Your task to perform on an android device: Open the phone app and click the voicemail tab. Image 0: 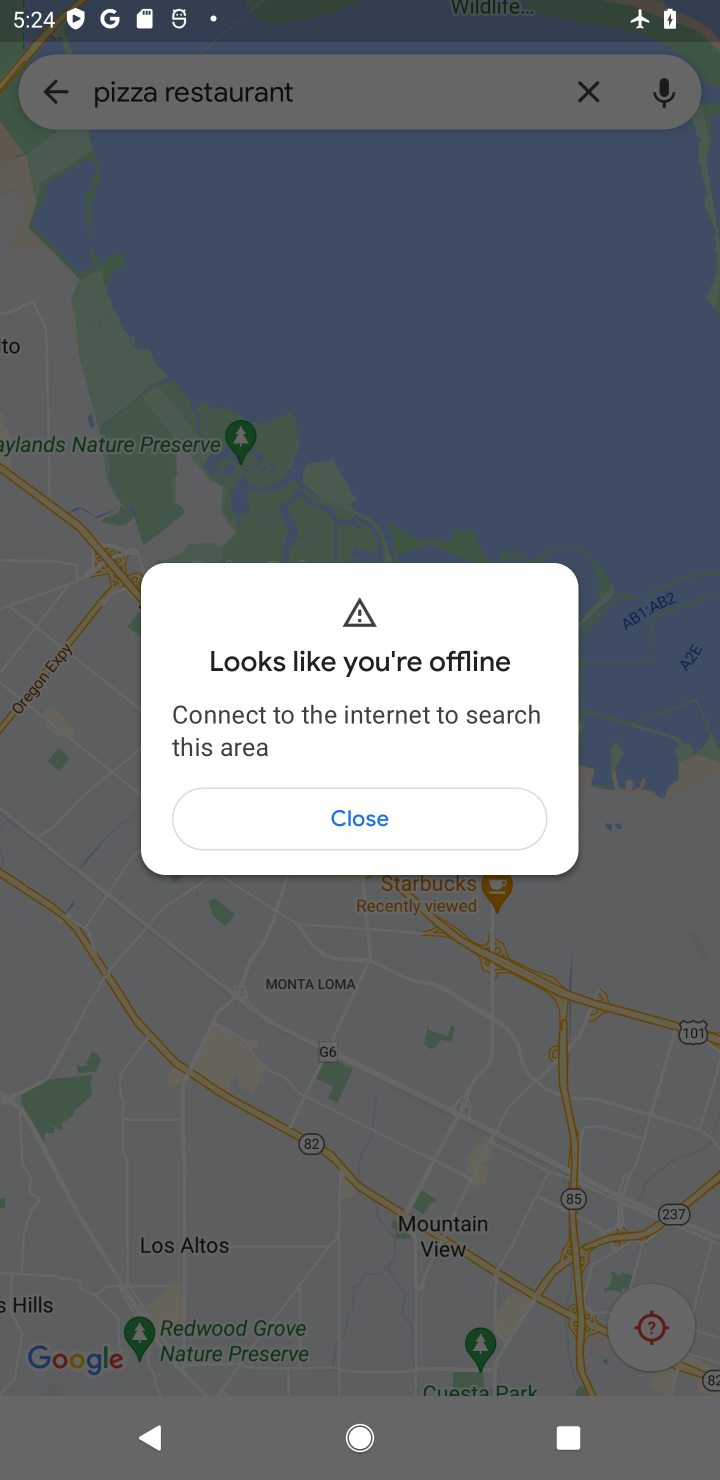
Step 0: press home button
Your task to perform on an android device: Open the phone app and click the voicemail tab. Image 1: 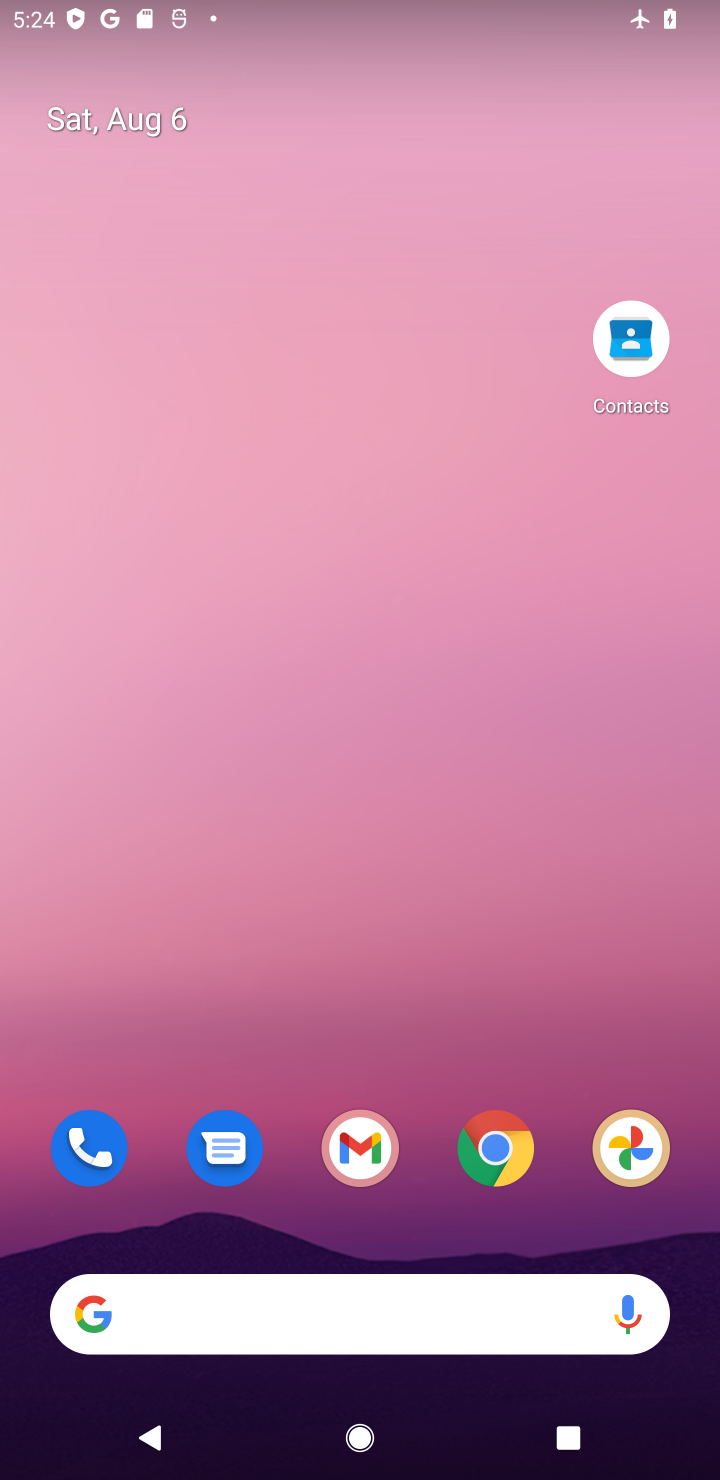
Step 1: drag from (284, 1229) to (674, 998)
Your task to perform on an android device: Open the phone app and click the voicemail tab. Image 2: 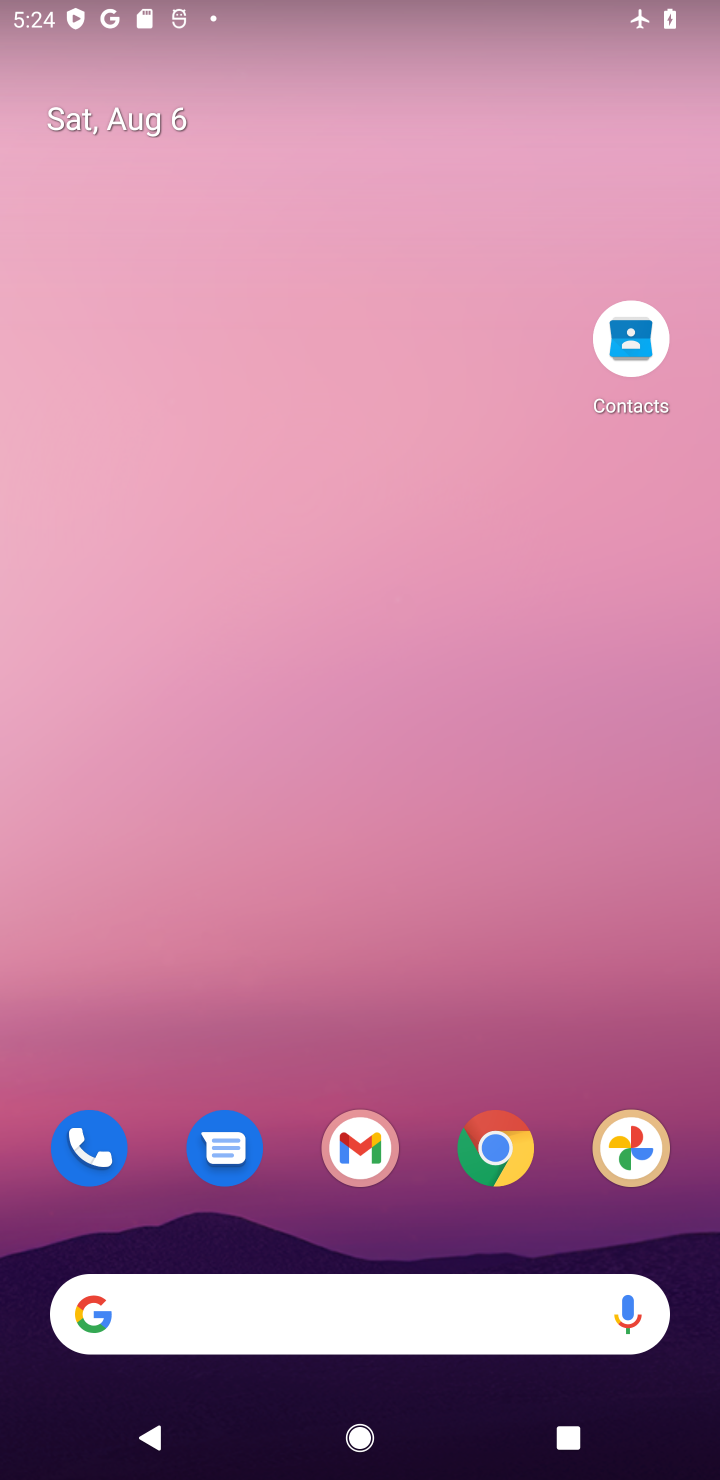
Step 2: click (134, 1172)
Your task to perform on an android device: Open the phone app and click the voicemail tab. Image 3: 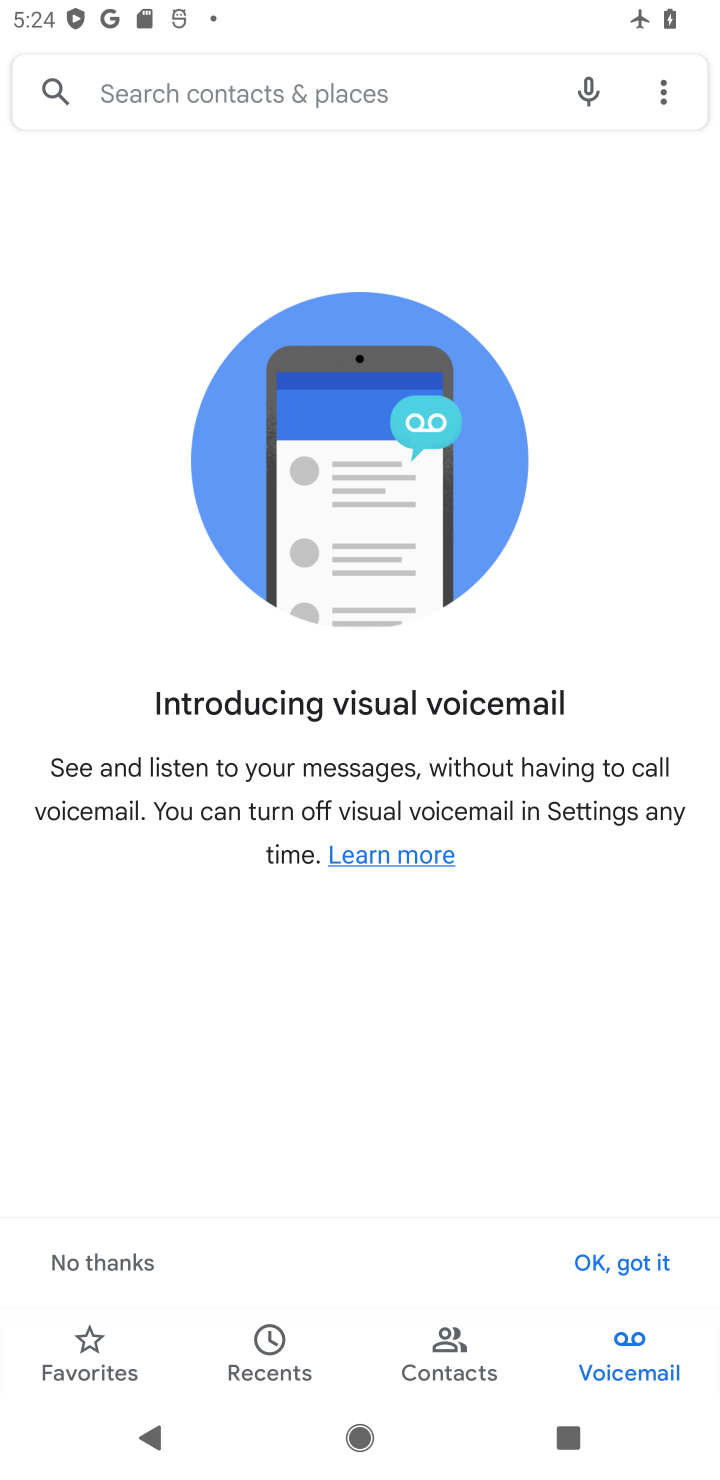
Step 3: task complete